Your task to perform on an android device: Do I have any events today? Image 0: 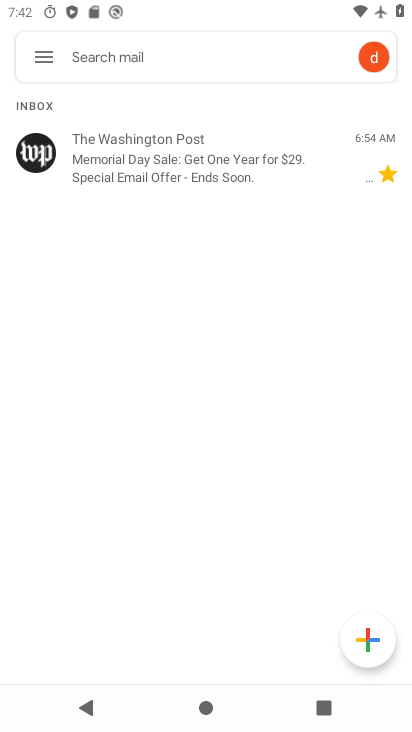
Step 0: press home button
Your task to perform on an android device: Do I have any events today? Image 1: 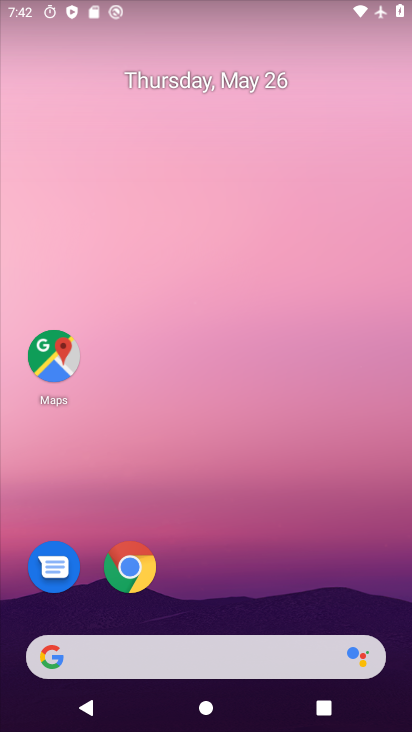
Step 1: drag from (123, 649) to (287, 117)
Your task to perform on an android device: Do I have any events today? Image 2: 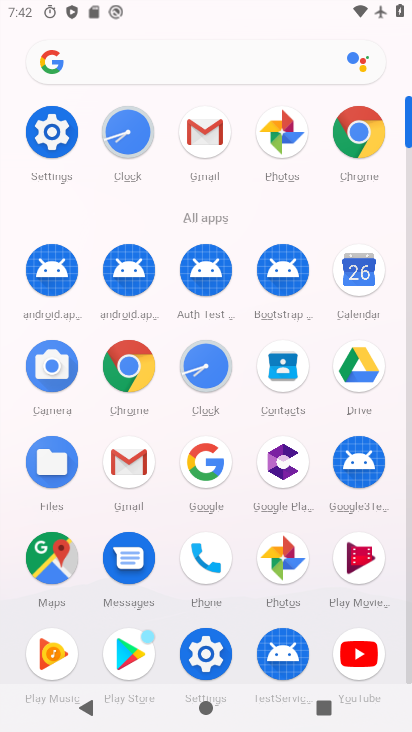
Step 2: click (369, 277)
Your task to perform on an android device: Do I have any events today? Image 3: 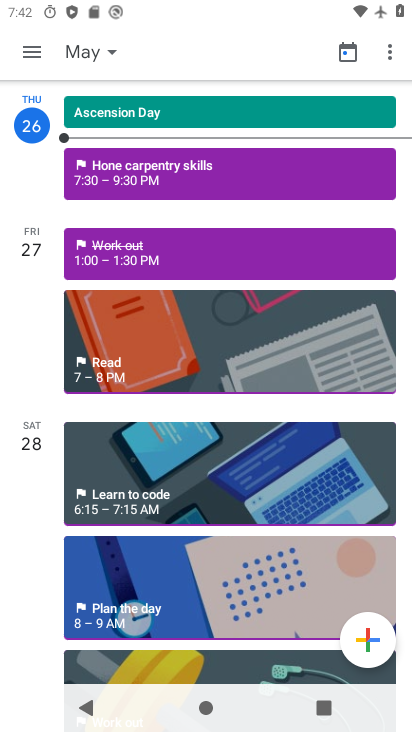
Step 3: click (71, 52)
Your task to perform on an android device: Do I have any events today? Image 4: 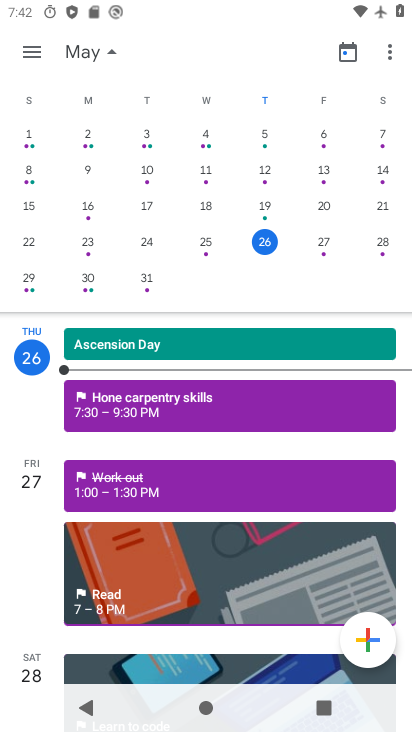
Step 4: click (267, 247)
Your task to perform on an android device: Do I have any events today? Image 5: 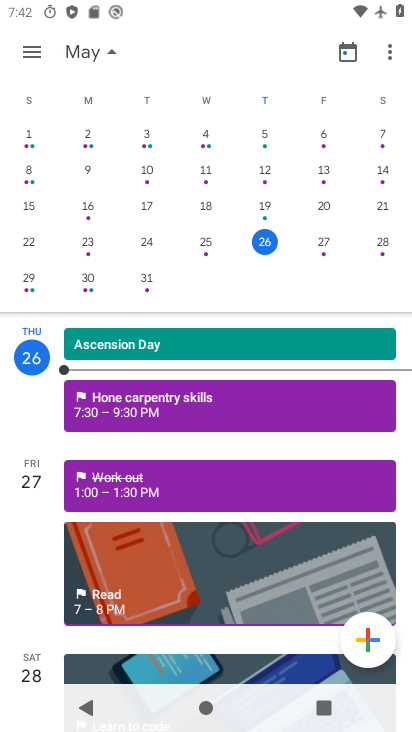
Step 5: click (32, 43)
Your task to perform on an android device: Do I have any events today? Image 6: 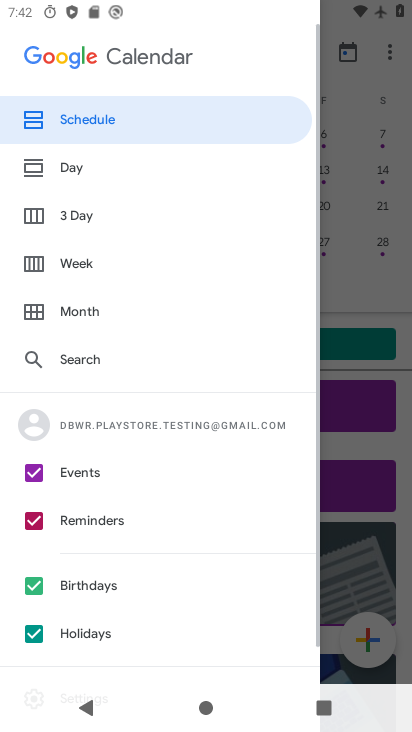
Step 6: click (86, 173)
Your task to perform on an android device: Do I have any events today? Image 7: 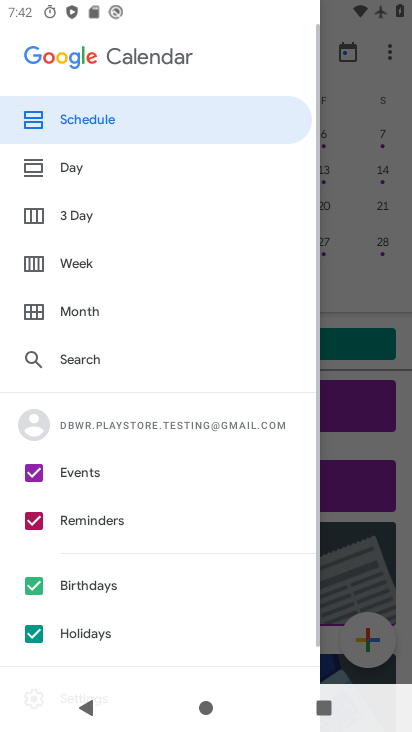
Step 7: click (75, 166)
Your task to perform on an android device: Do I have any events today? Image 8: 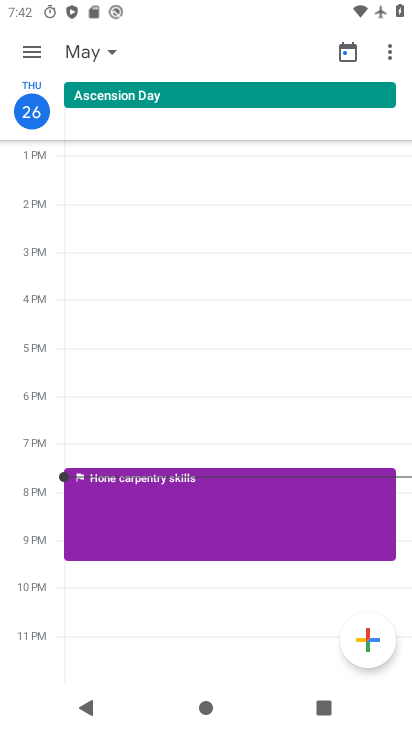
Step 8: click (39, 59)
Your task to perform on an android device: Do I have any events today? Image 9: 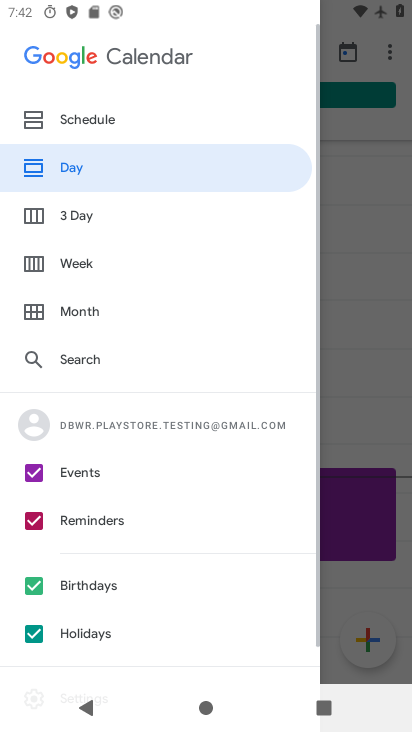
Step 9: click (107, 129)
Your task to perform on an android device: Do I have any events today? Image 10: 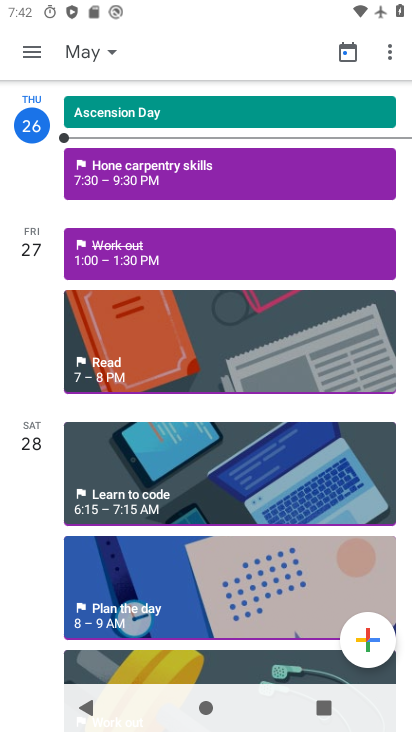
Step 10: click (219, 172)
Your task to perform on an android device: Do I have any events today? Image 11: 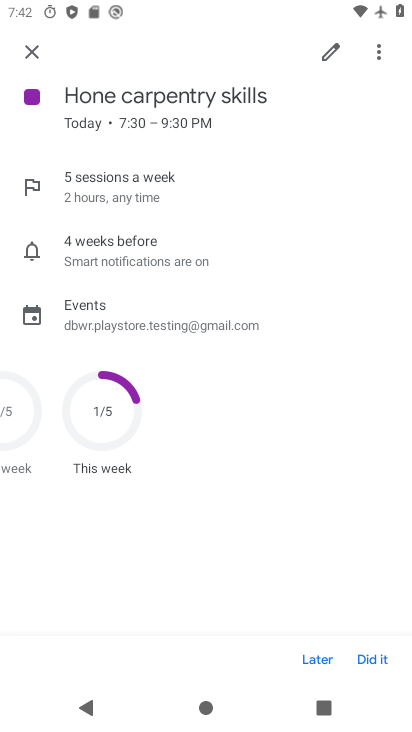
Step 11: task complete